Your task to perform on an android device: toggle pop-ups in chrome Image 0: 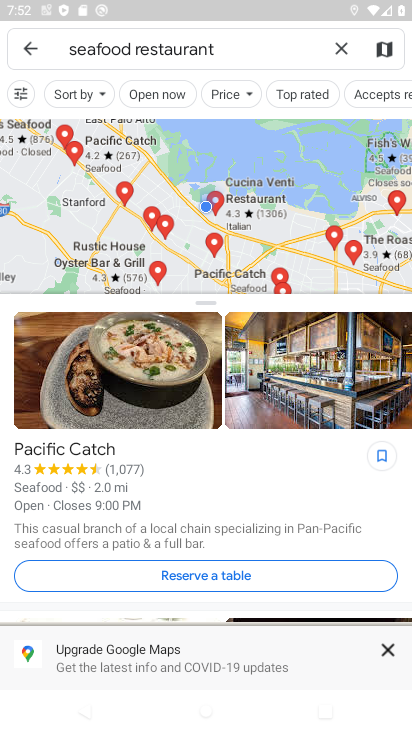
Step 0: press home button
Your task to perform on an android device: toggle pop-ups in chrome Image 1: 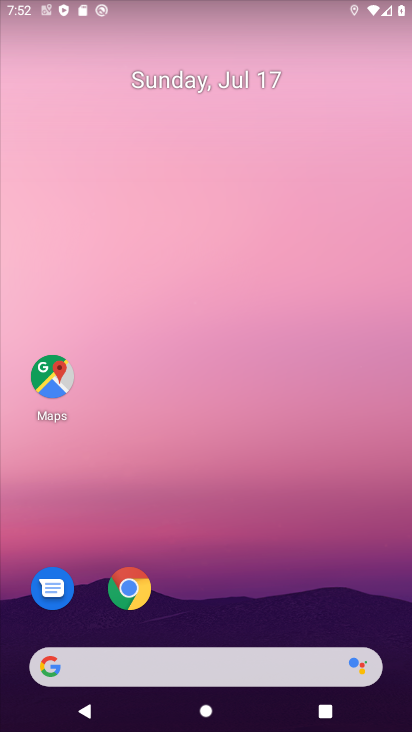
Step 1: drag from (261, 669) to (290, 244)
Your task to perform on an android device: toggle pop-ups in chrome Image 2: 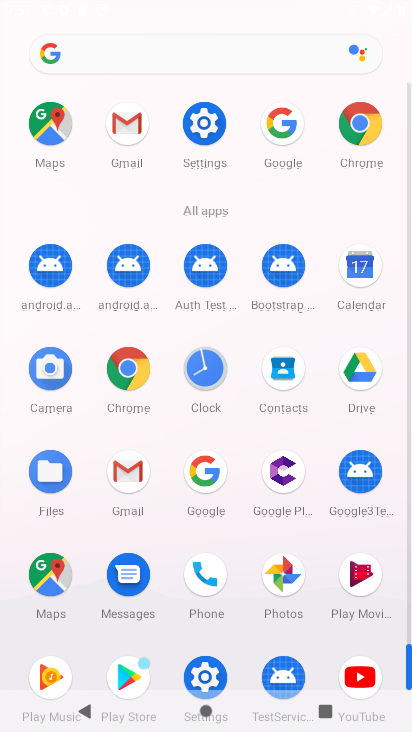
Step 2: click (359, 147)
Your task to perform on an android device: toggle pop-ups in chrome Image 3: 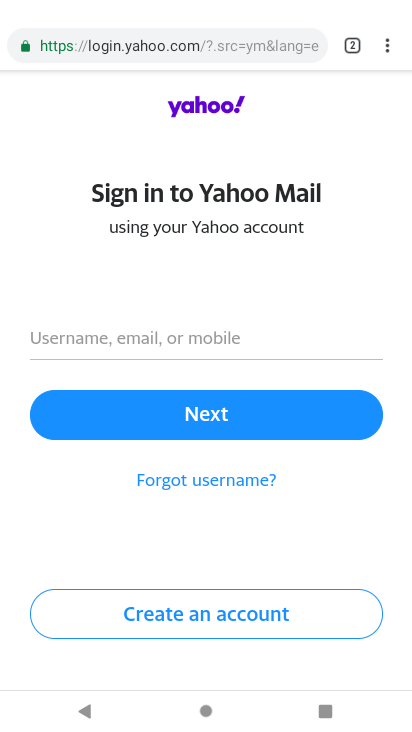
Step 3: click (392, 49)
Your task to perform on an android device: toggle pop-ups in chrome Image 4: 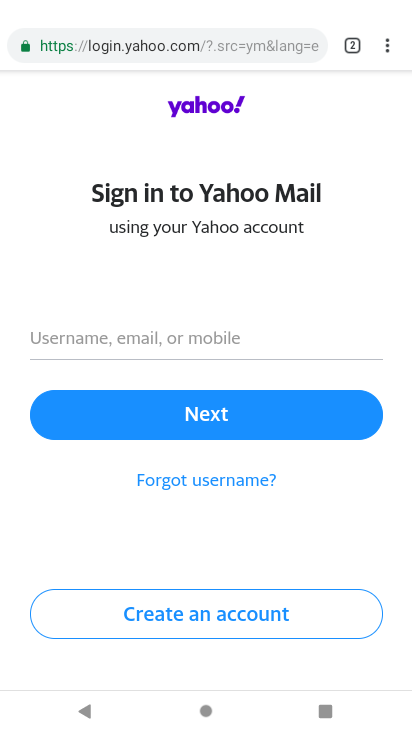
Step 4: click (392, 53)
Your task to perform on an android device: toggle pop-ups in chrome Image 5: 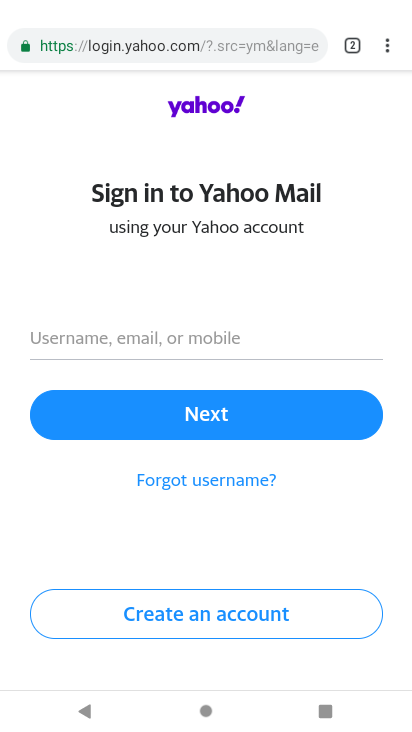
Step 5: click (387, 51)
Your task to perform on an android device: toggle pop-ups in chrome Image 6: 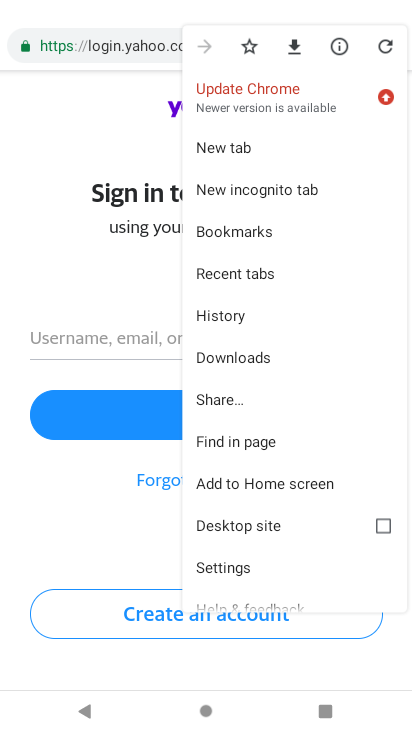
Step 6: drag from (264, 394) to (296, 190)
Your task to perform on an android device: toggle pop-ups in chrome Image 7: 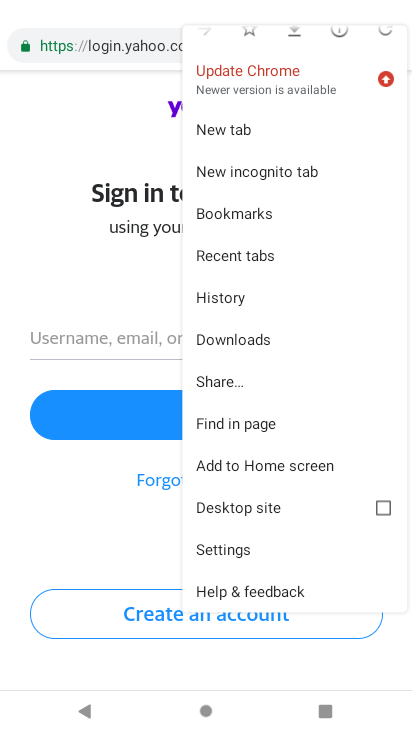
Step 7: click (241, 563)
Your task to perform on an android device: toggle pop-ups in chrome Image 8: 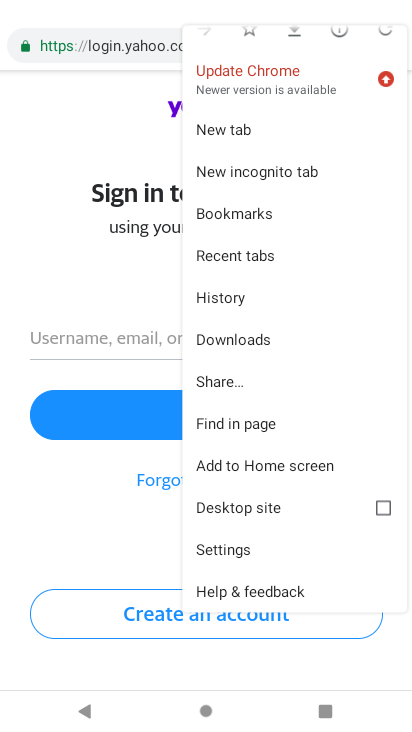
Step 8: click (236, 552)
Your task to perform on an android device: toggle pop-ups in chrome Image 9: 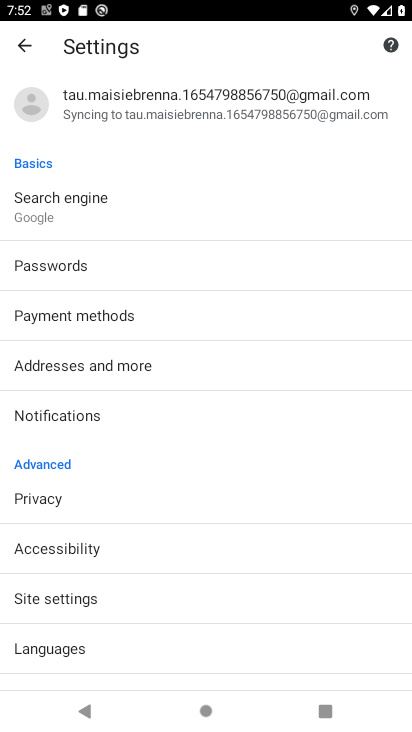
Step 9: click (92, 602)
Your task to perform on an android device: toggle pop-ups in chrome Image 10: 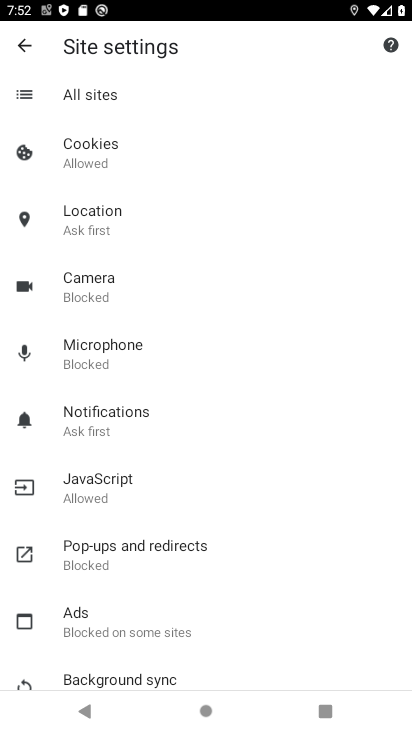
Step 10: click (145, 555)
Your task to perform on an android device: toggle pop-ups in chrome Image 11: 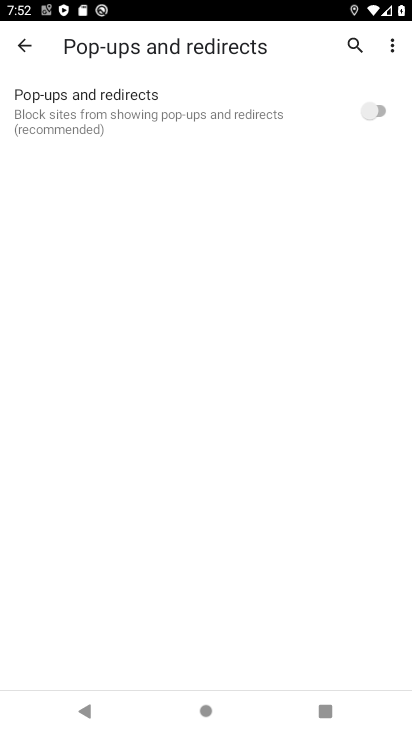
Step 11: click (381, 125)
Your task to perform on an android device: toggle pop-ups in chrome Image 12: 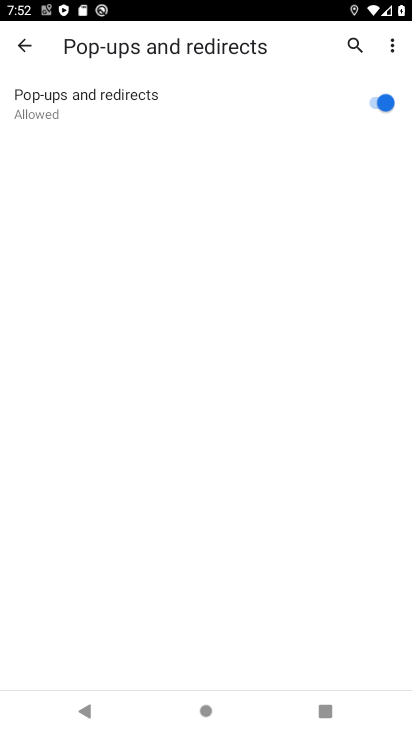
Step 12: task complete